Your task to perform on an android device: all mails in gmail Image 0: 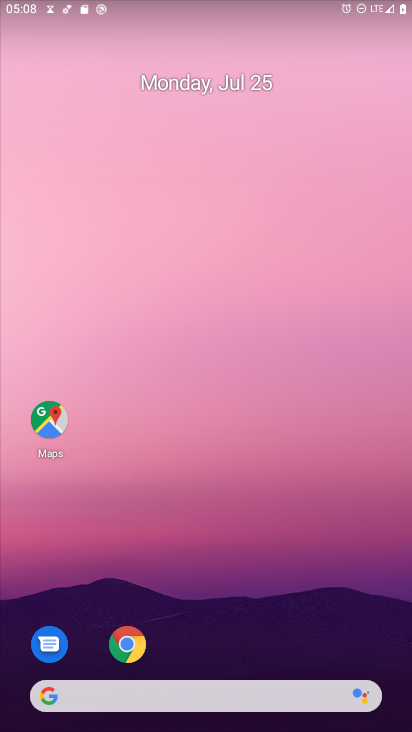
Step 0: press home button
Your task to perform on an android device: all mails in gmail Image 1: 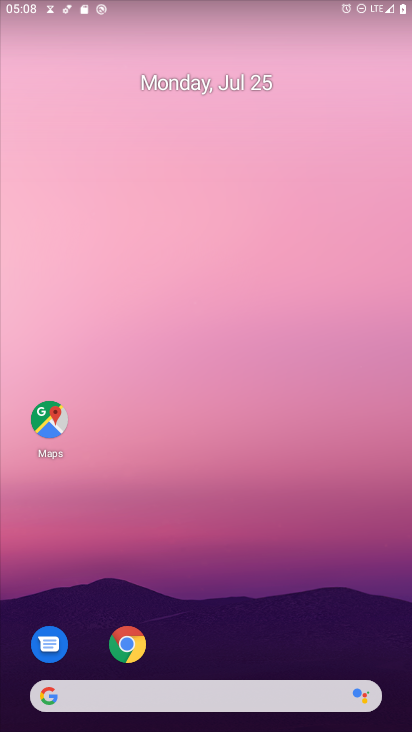
Step 1: drag from (236, 633) to (243, 112)
Your task to perform on an android device: all mails in gmail Image 2: 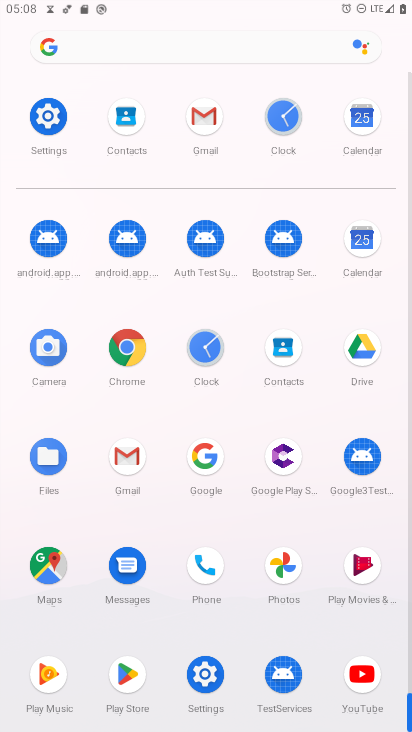
Step 2: click (201, 120)
Your task to perform on an android device: all mails in gmail Image 3: 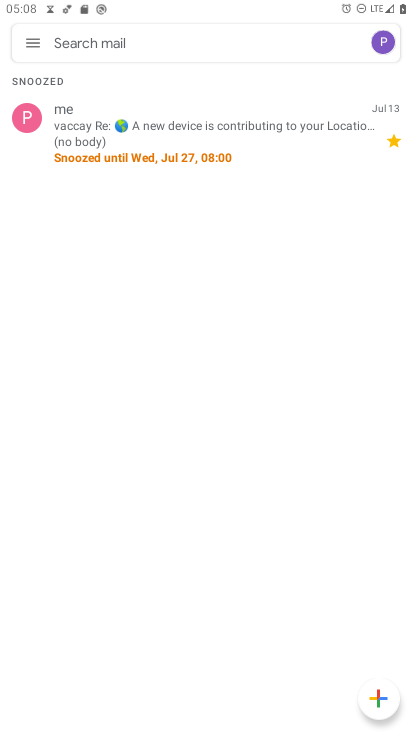
Step 3: click (31, 46)
Your task to perform on an android device: all mails in gmail Image 4: 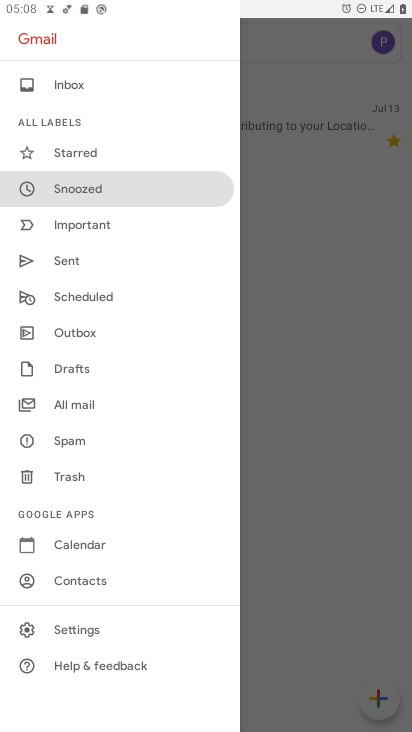
Step 4: click (81, 406)
Your task to perform on an android device: all mails in gmail Image 5: 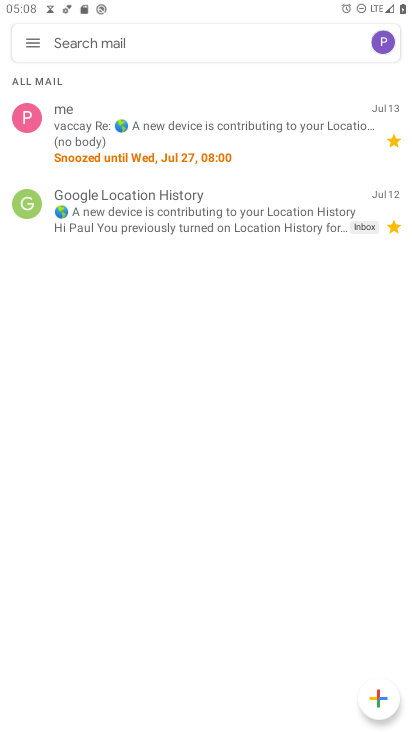
Step 5: task complete